Your task to perform on an android device: Go to Amazon Image 0: 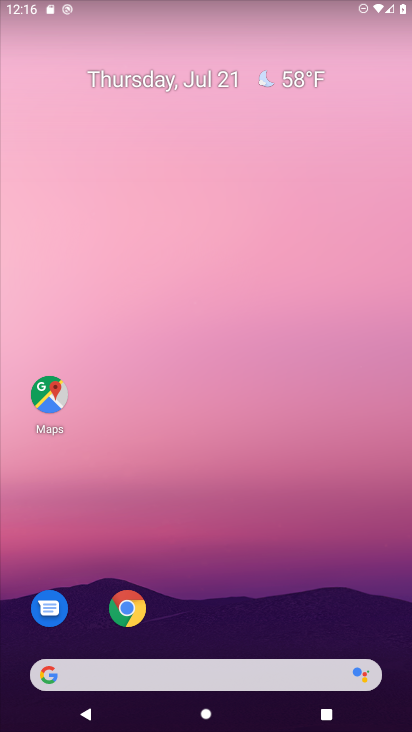
Step 0: press home button
Your task to perform on an android device: Go to Amazon Image 1: 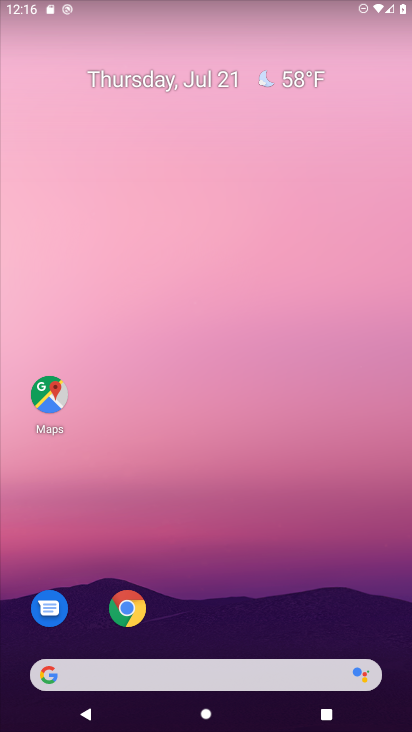
Step 1: click (52, 678)
Your task to perform on an android device: Go to Amazon Image 2: 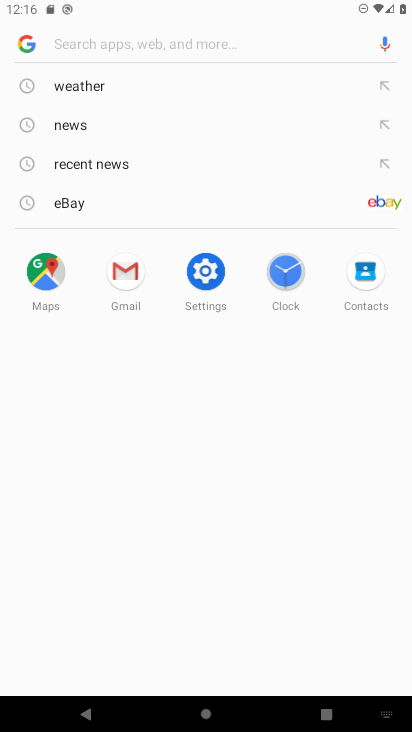
Step 2: type "Amazon"
Your task to perform on an android device: Go to Amazon Image 3: 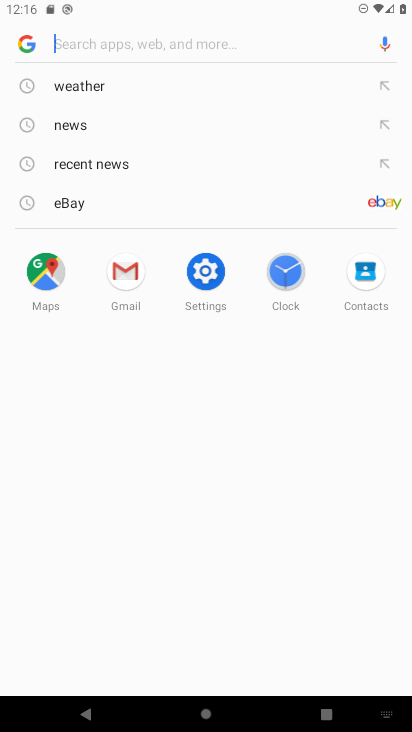
Step 3: click (109, 40)
Your task to perform on an android device: Go to Amazon Image 4: 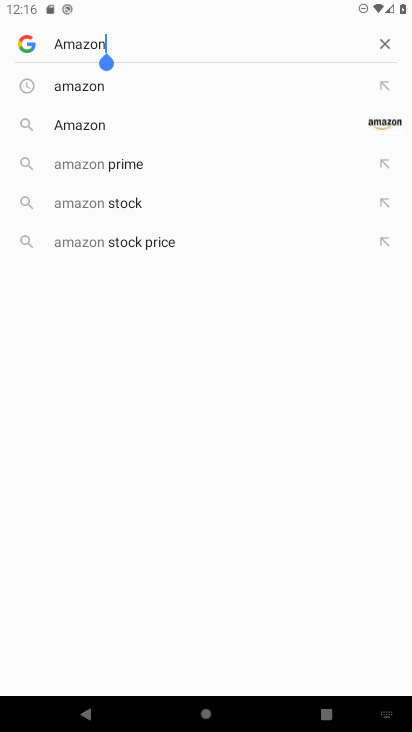
Step 4: press enter
Your task to perform on an android device: Go to Amazon Image 5: 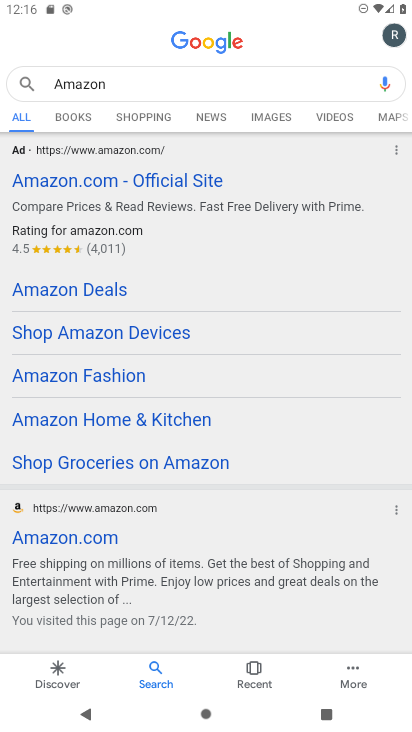
Step 5: click (72, 534)
Your task to perform on an android device: Go to Amazon Image 6: 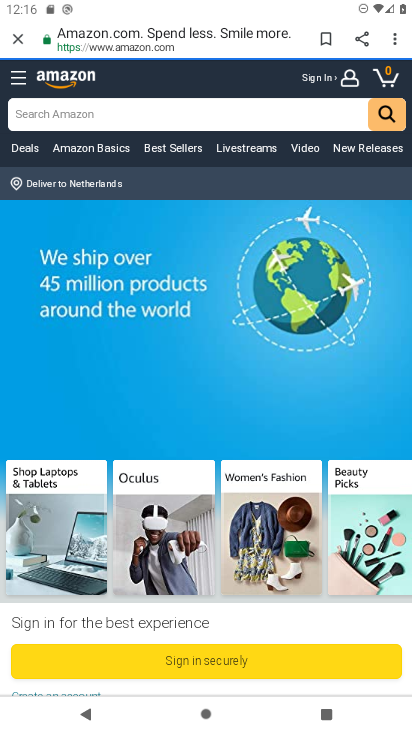
Step 6: task complete